Your task to perform on an android device: manage bookmarks in the chrome app Image 0: 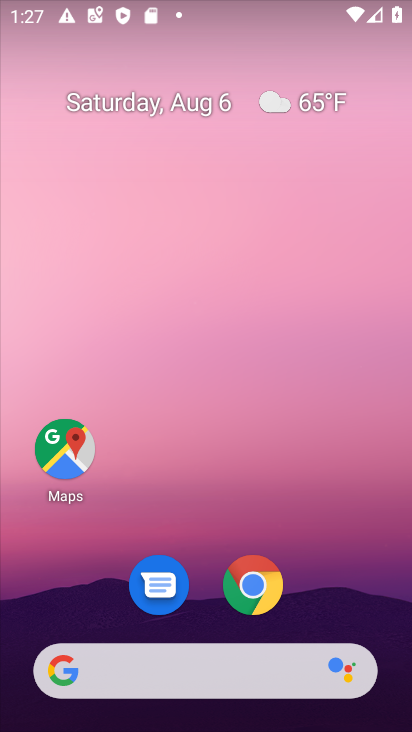
Step 0: click (250, 584)
Your task to perform on an android device: manage bookmarks in the chrome app Image 1: 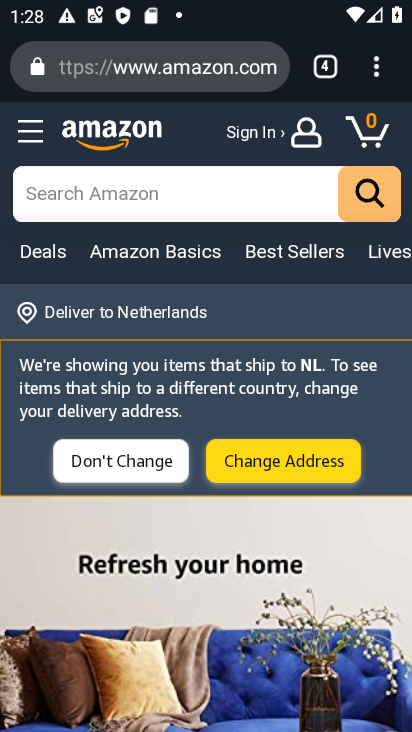
Step 1: click (375, 65)
Your task to perform on an android device: manage bookmarks in the chrome app Image 2: 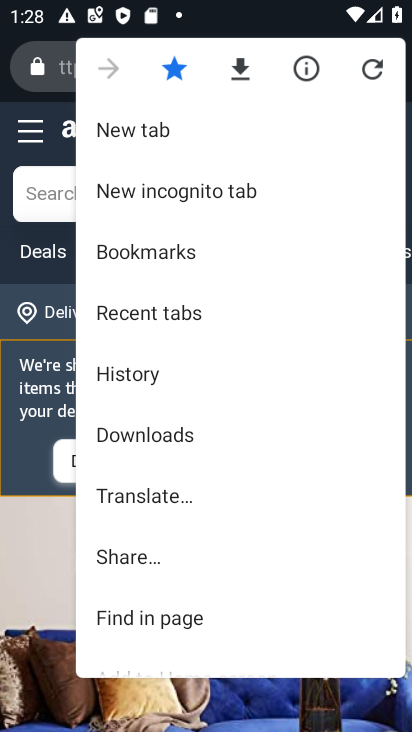
Step 2: click (183, 248)
Your task to perform on an android device: manage bookmarks in the chrome app Image 3: 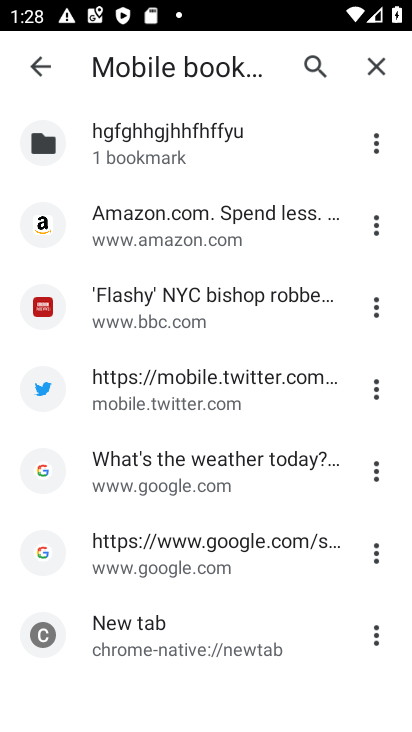
Step 3: click (377, 303)
Your task to perform on an android device: manage bookmarks in the chrome app Image 4: 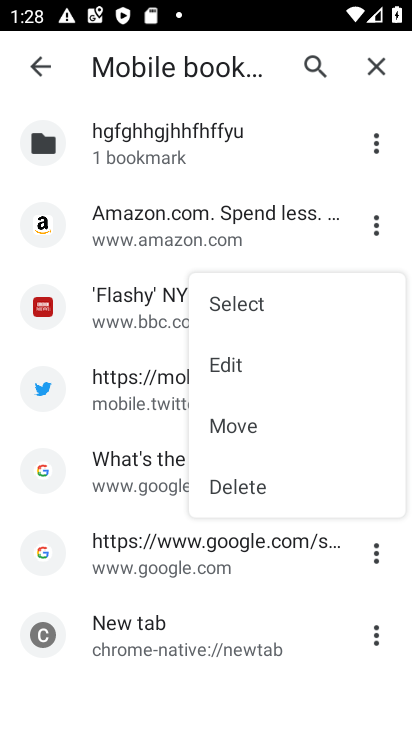
Step 4: click (253, 360)
Your task to perform on an android device: manage bookmarks in the chrome app Image 5: 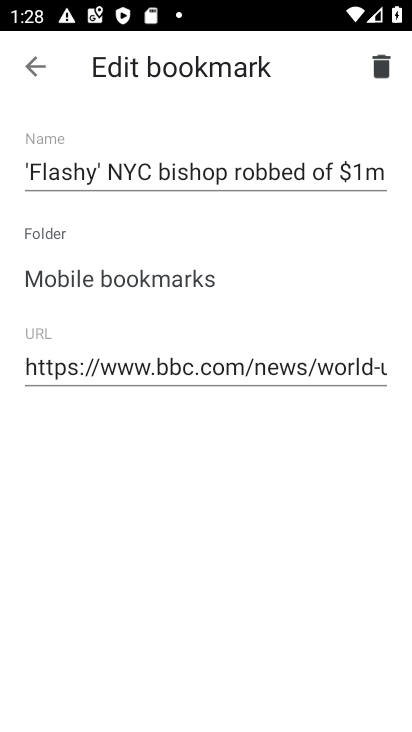
Step 5: task complete